Your task to perform on an android device: Open settings on Google Maps Image 0: 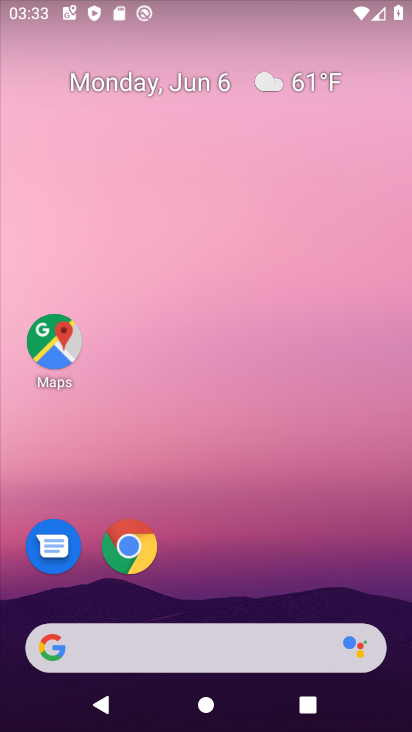
Step 0: click (57, 341)
Your task to perform on an android device: Open settings on Google Maps Image 1: 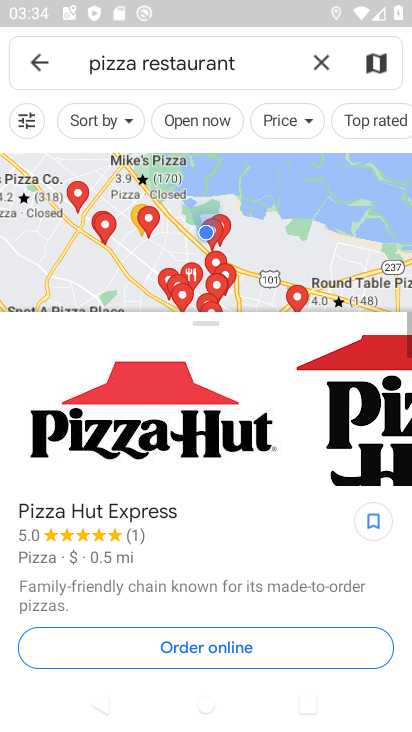
Step 1: click (326, 63)
Your task to perform on an android device: Open settings on Google Maps Image 2: 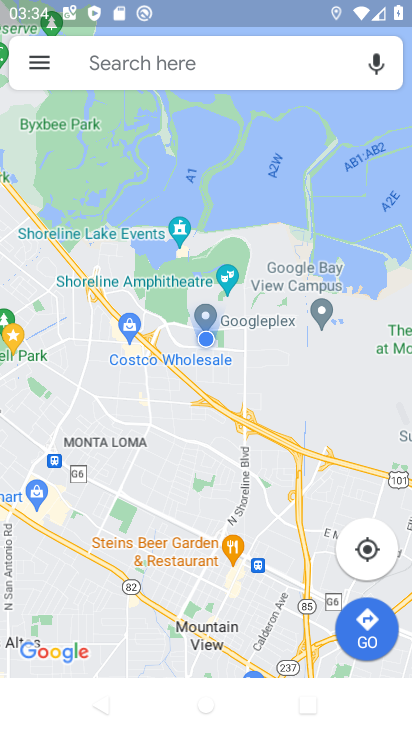
Step 2: click (31, 62)
Your task to perform on an android device: Open settings on Google Maps Image 3: 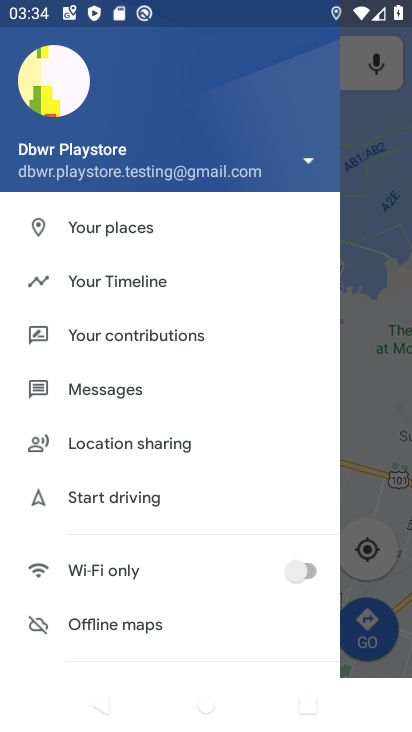
Step 3: drag from (231, 623) to (355, 20)
Your task to perform on an android device: Open settings on Google Maps Image 4: 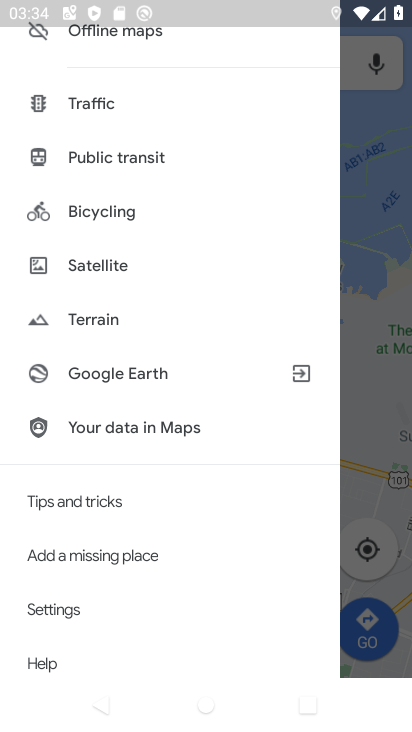
Step 4: click (51, 613)
Your task to perform on an android device: Open settings on Google Maps Image 5: 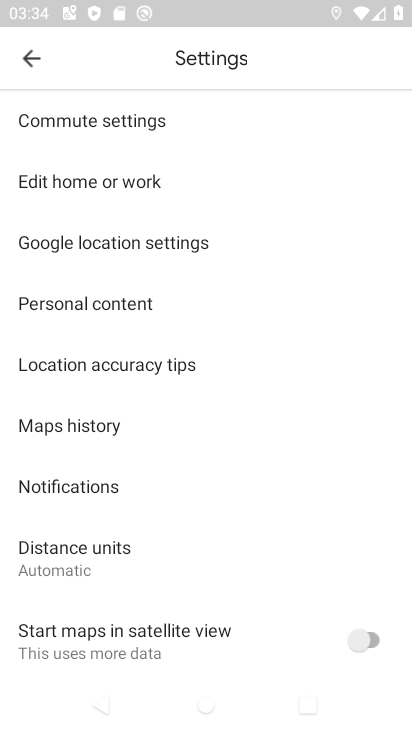
Step 5: task complete